Your task to perform on an android device: Add "acer nitro" to the cart on ebay.com, then select checkout. Image 0: 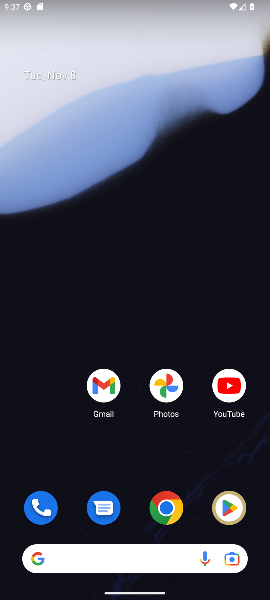
Step 0: click (168, 515)
Your task to perform on an android device: Add "acer nitro" to the cart on ebay.com, then select checkout. Image 1: 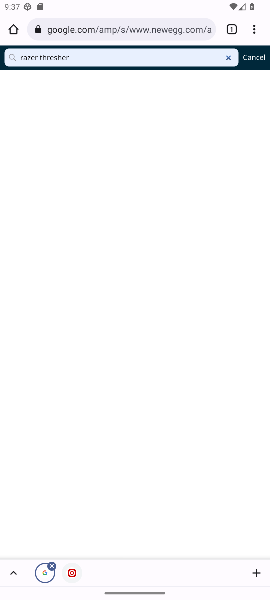
Step 1: click (116, 28)
Your task to perform on an android device: Add "acer nitro" to the cart on ebay.com, then select checkout. Image 2: 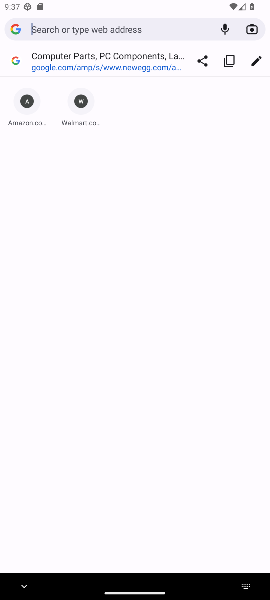
Step 2: type "ebay"
Your task to perform on an android device: Add "acer nitro" to the cart on ebay.com, then select checkout. Image 3: 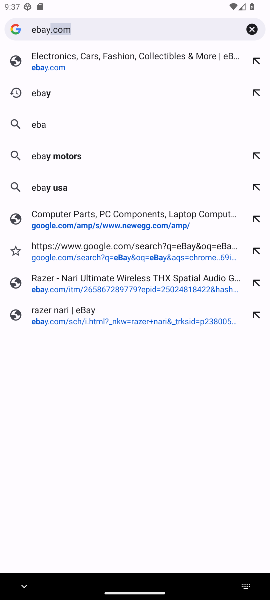
Step 3: type ""
Your task to perform on an android device: Add "acer nitro" to the cart on ebay.com, then select checkout. Image 4: 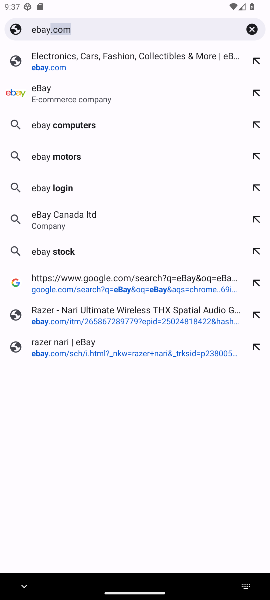
Step 4: click (47, 97)
Your task to perform on an android device: Add "acer nitro" to the cart on ebay.com, then select checkout. Image 5: 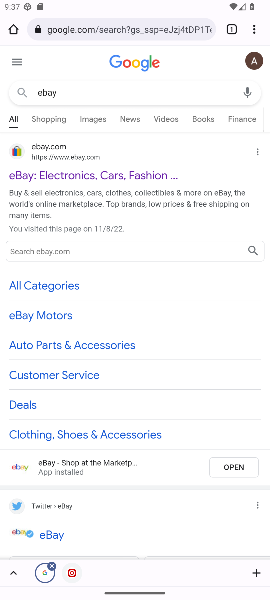
Step 5: click (56, 172)
Your task to perform on an android device: Add "acer nitro" to the cart on ebay.com, then select checkout. Image 6: 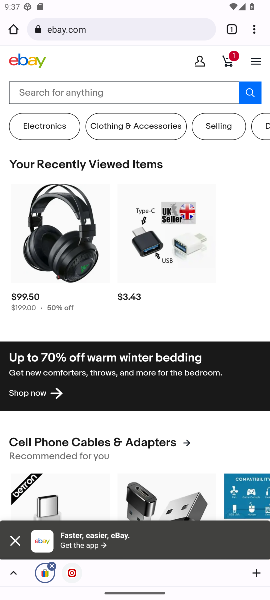
Step 6: click (43, 91)
Your task to perform on an android device: Add "acer nitro" to the cart on ebay.com, then select checkout. Image 7: 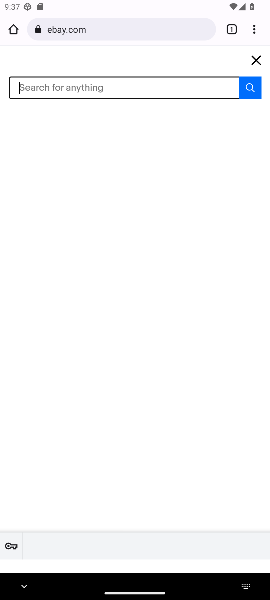
Step 7: type "acer nitro"
Your task to perform on an android device: Add "acer nitro" to the cart on ebay.com, then select checkout. Image 8: 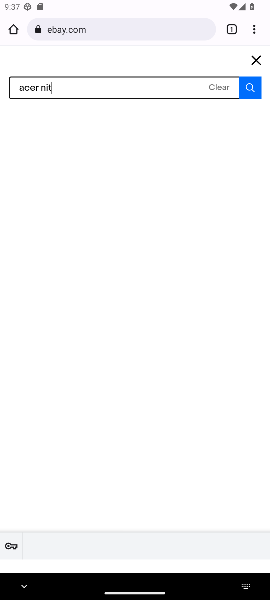
Step 8: type ""
Your task to perform on an android device: Add "acer nitro" to the cart on ebay.com, then select checkout. Image 9: 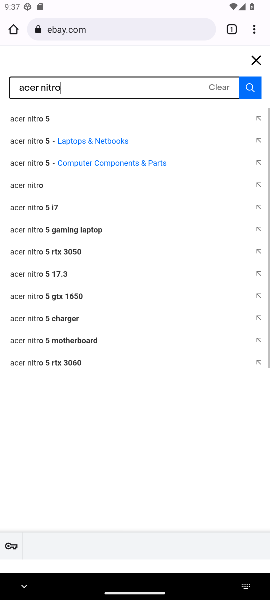
Step 9: click (31, 114)
Your task to perform on an android device: Add "acer nitro" to the cart on ebay.com, then select checkout. Image 10: 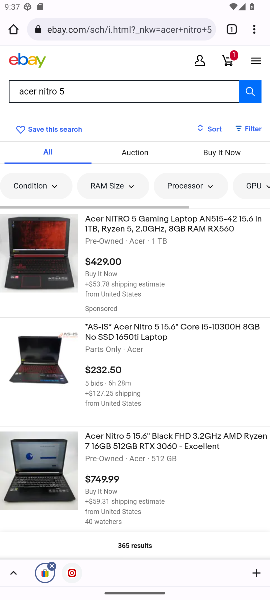
Step 10: click (134, 228)
Your task to perform on an android device: Add "acer nitro" to the cart on ebay.com, then select checkout. Image 11: 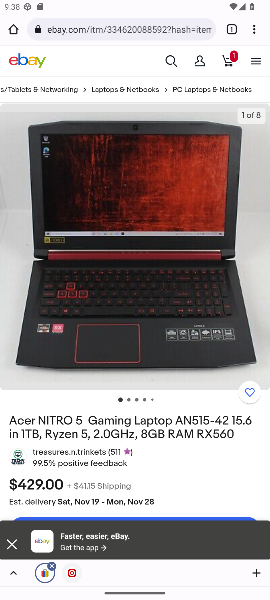
Step 11: click (12, 545)
Your task to perform on an android device: Add "acer nitro" to the cart on ebay.com, then select checkout. Image 12: 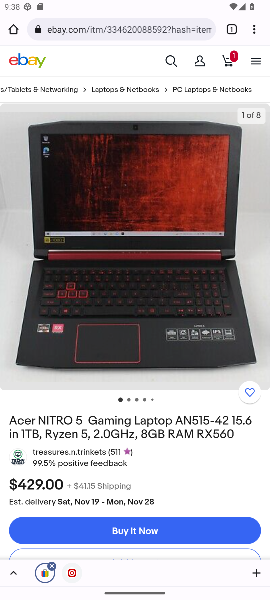
Step 12: drag from (104, 445) to (143, 245)
Your task to perform on an android device: Add "acer nitro" to the cart on ebay.com, then select checkout. Image 13: 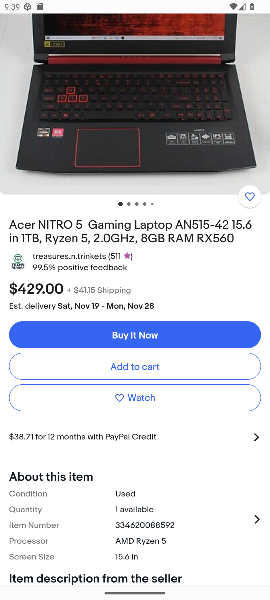
Step 13: click (132, 364)
Your task to perform on an android device: Add "acer nitro" to the cart on ebay.com, then select checkout. Image 14: 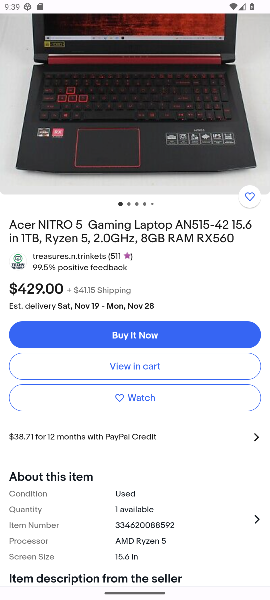
Step 14: task complete